Your task to perform on an android device: check android version Image 0: 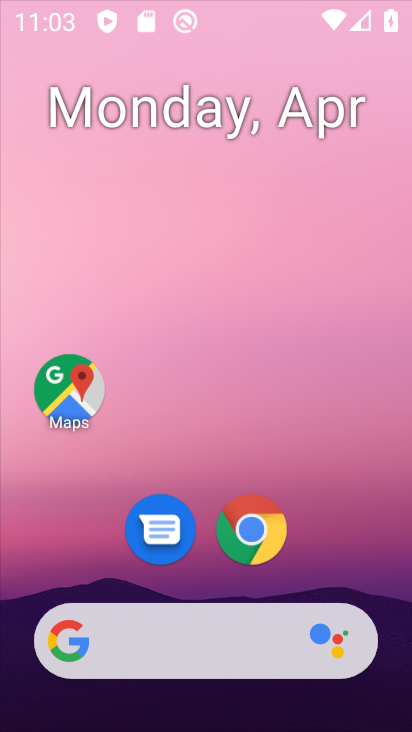
Step 0: drag from (358, 590) to (255, 20)
Your task to perform on an android device: check android version Image 1: 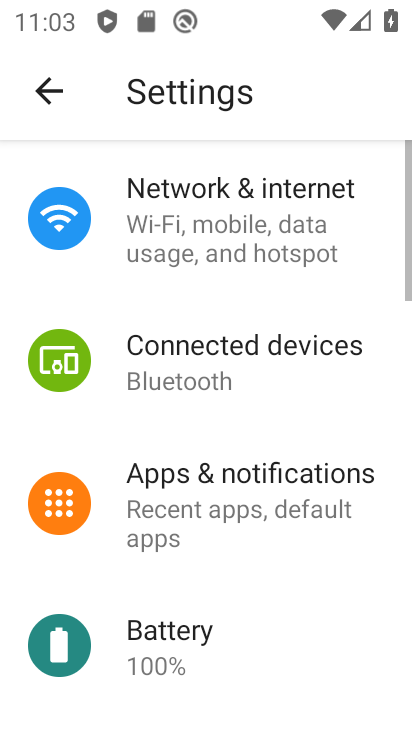
Step 1: press home button
Your task to perform on an android device: check android version Image 2: 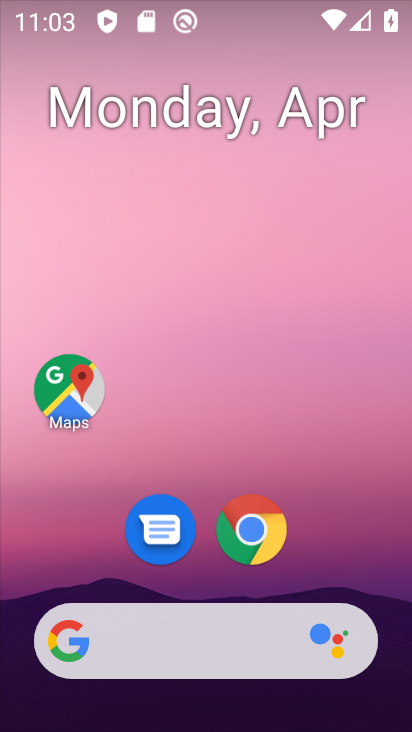
Step 2: drag from (384, 593) to (278, 37)
Your task to perform on an android device: check android version Image 3: 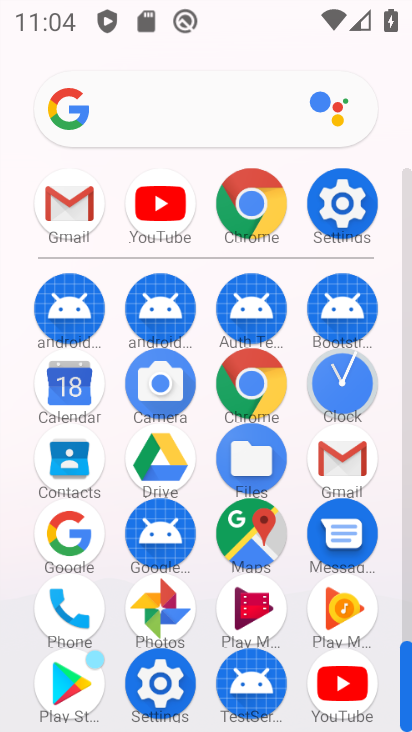
Step 3: click (337, 215)
Your task to perform on an android device: check android version Image 4: 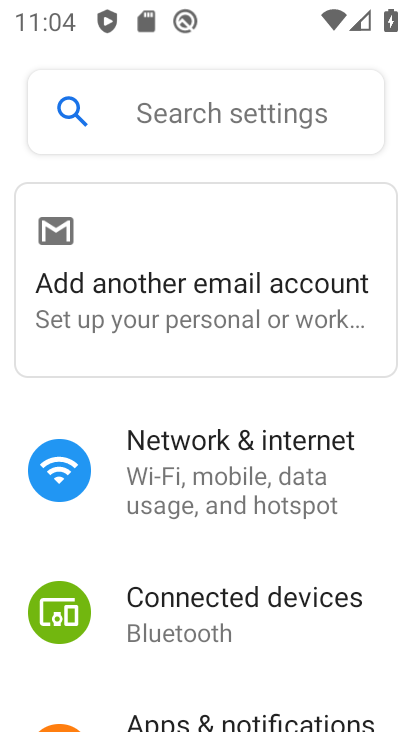
Step 4: drag from (212, 531) to (218, 72)
Your task to perform on an android device: check android version Image 5: 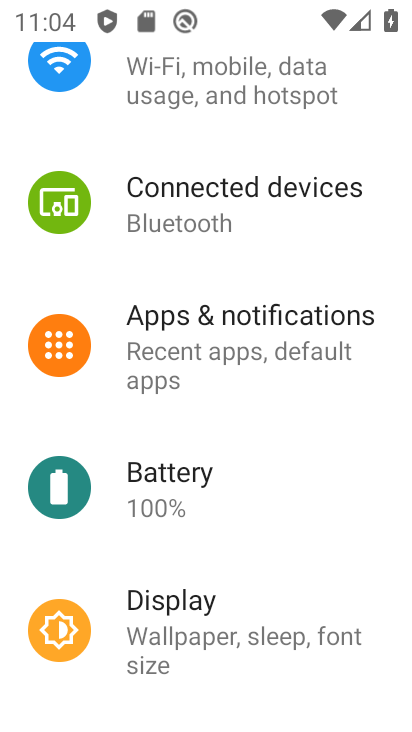
Step 5: drag from (121, 579) to (252, 209)
Your task to perform on an android device: check android version Image 6: 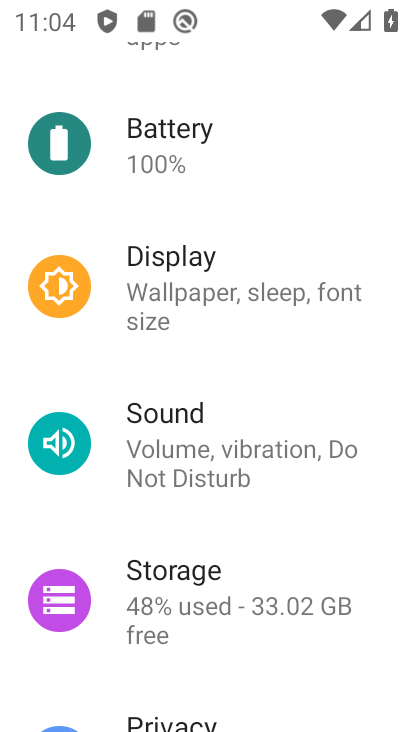
Step 6: drag from (124, 627) to (220, 146)
Your task to perform on an android device: check android version Image 7: 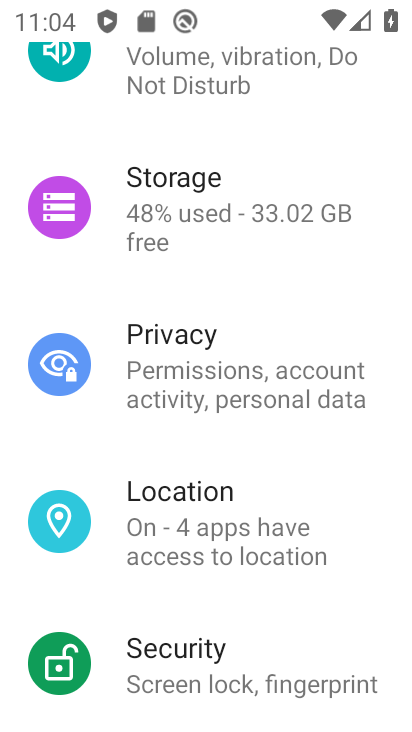
Step 7: drag from (166, 625) to (233, 154)
Your task to perform on an android device: check android version Image 8: 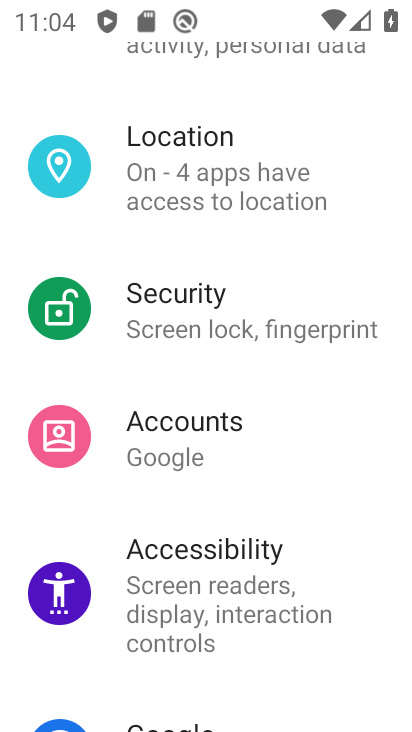
Step 8: drag from (242, 494) to (275, 121)
Your task to perform on an android device: check android version Image 9: 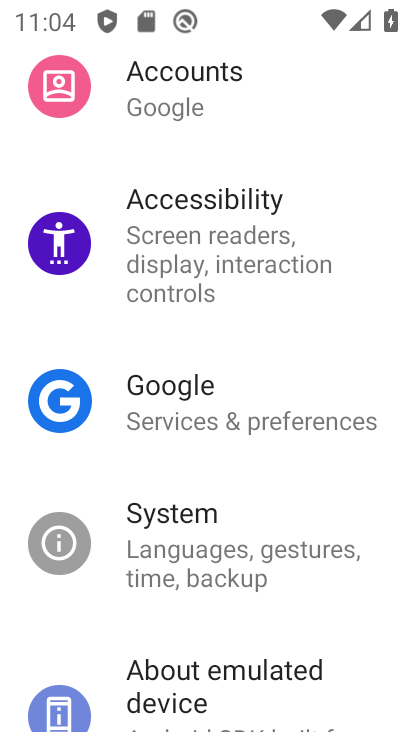
Step 9: drag from (175, 618) to (259, 131)
Your task to perform on an android device: check android version Image 10: 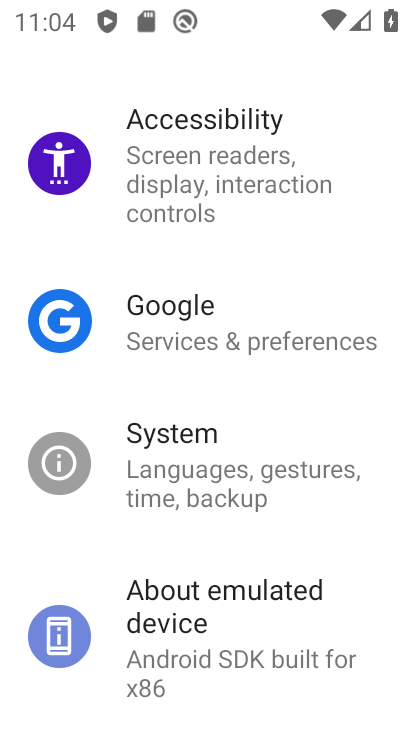
Step 10: click (281, 598)
Your task to perform on an android device: check android version Image 11: 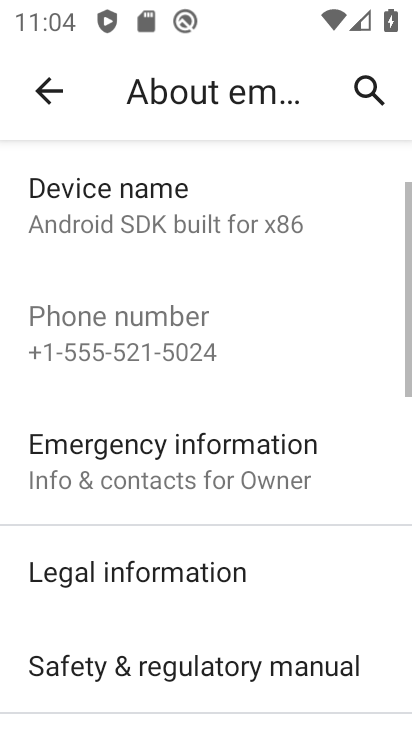
Step 11: drag from (175, 554) to (250, 158)
Your task to perform on an android device: check android version Image 12: 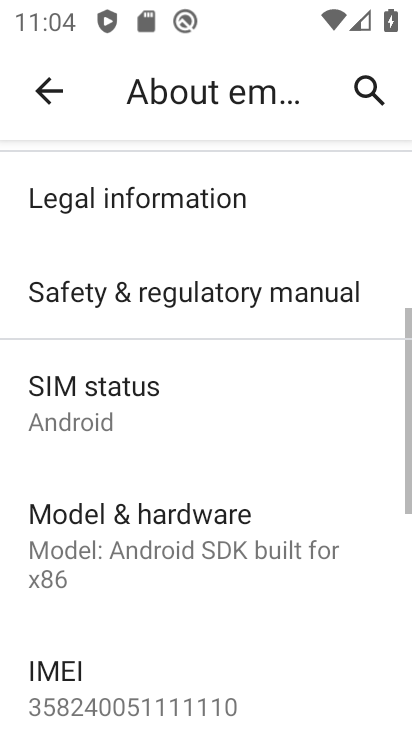
Step 12: drag from (171, 547) to (212, 198)
Your task to perform on an android device: check android version Image 13: 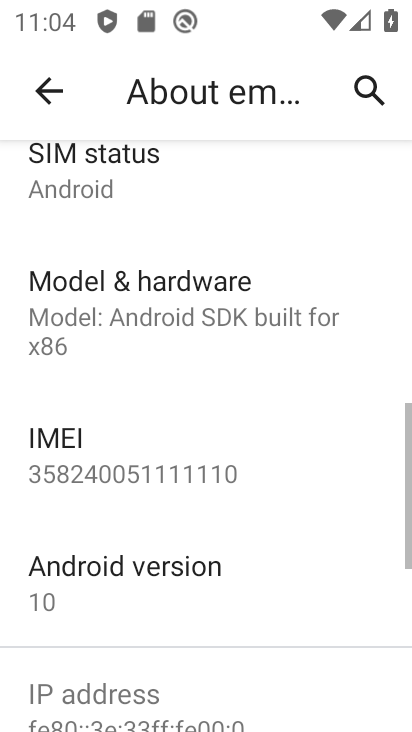
Step 13: click (199, 596)
Your task to perform on an android device: check android version Image 14: 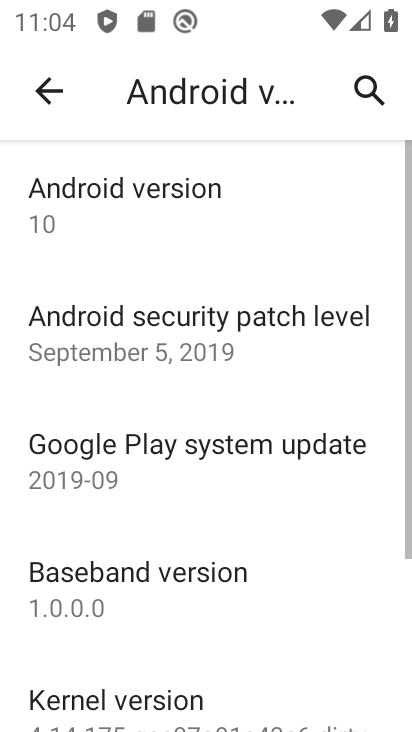
Step 14: click (208, 236)
Your task to perform on an android device: check android version Image 15: 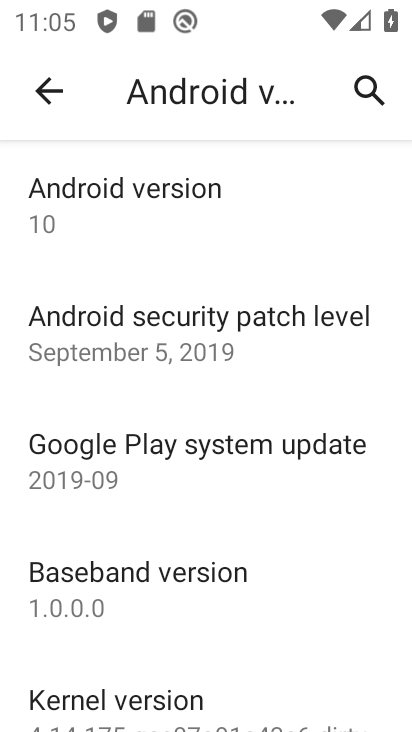
Step 15: task complete